Your task to perform on an android device: create a new album in the google photos Image 0: 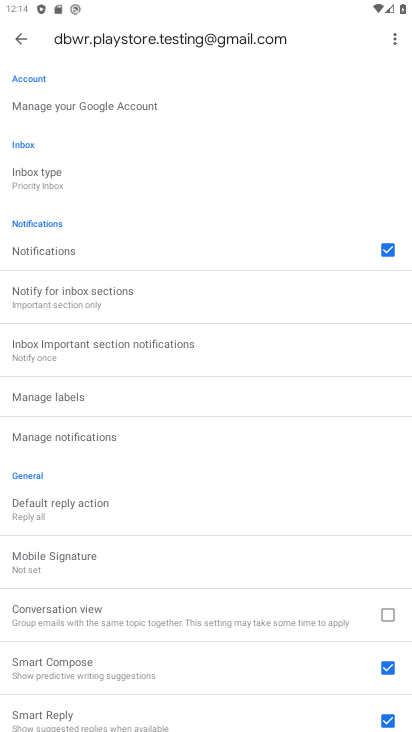
Step 0: press home button
Your task to perform on an android device: create a new album in the google photos Image 1: 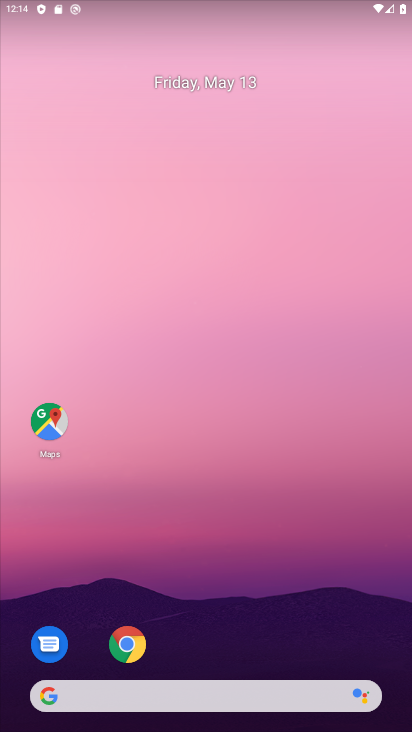
Step 1: drag from (234, 570) to (221, 75)
Your task to perform on an android device: create a new album in the google photos Image 2: 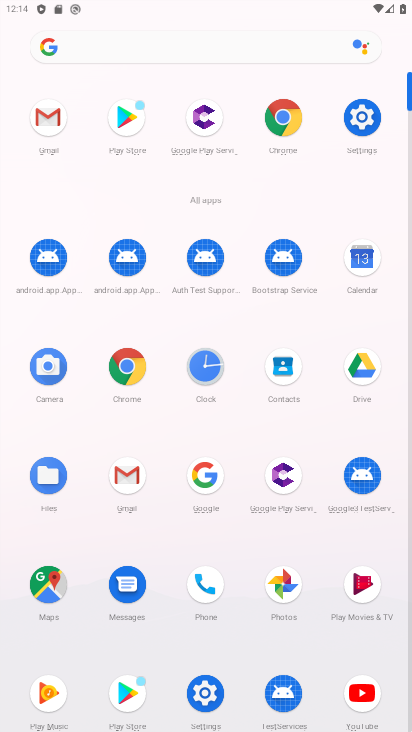
Step 2: click (277, 580)
Your task to perform on an android device: create a new album in the google photos Image 3: 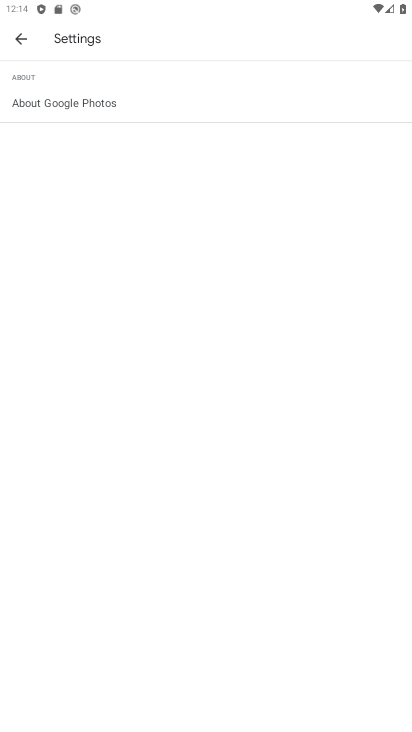
Step 3: click (17, 36)
Your task to perform on an android device: create a new album in the google photos Image 4: 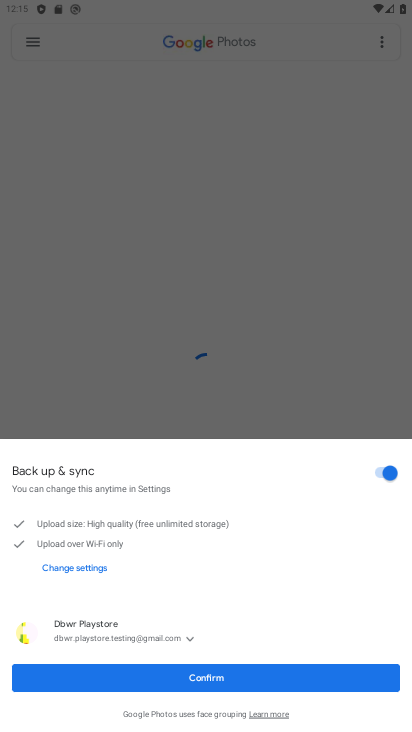
Step 4: click (309, 675)
Your task to perform on an android device: create a new album in the google photos Image 5: 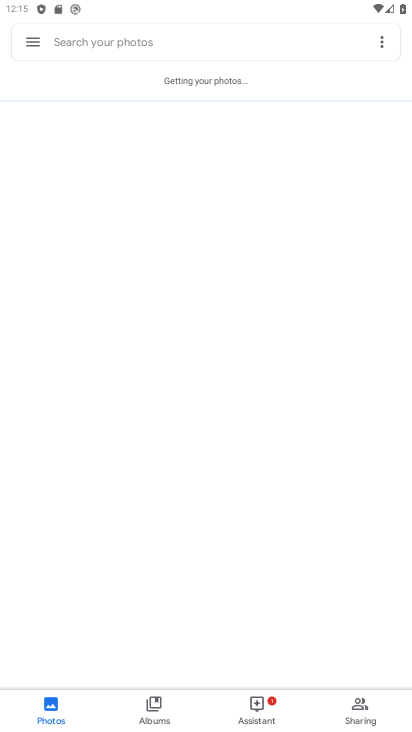
Step 5: click (379, 37)
Your task to perform on an android device: create a new album in the google photos Image 6: 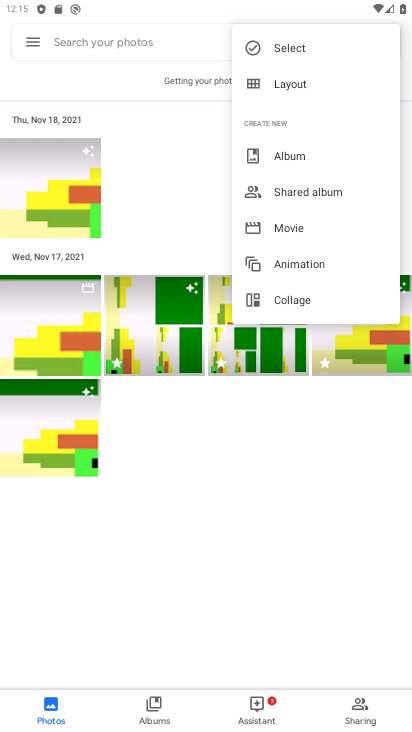
Step 6: click (282, 154)
Your task to perform on an android device: create a new album in the google photos Image 7: 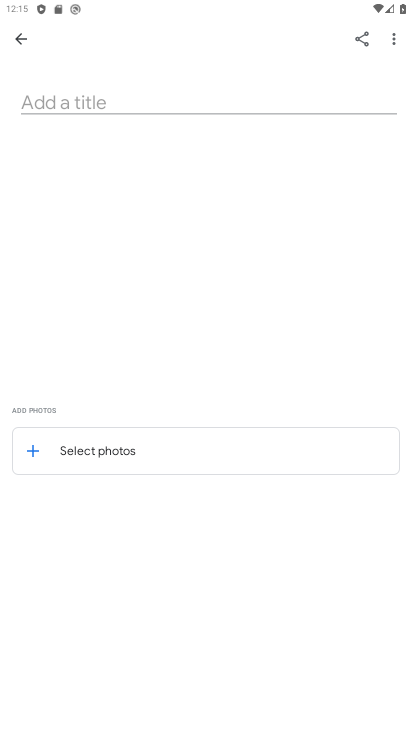
Step 7: click (151, 99)
Your task to perform on an android device: create a new album in the google photos Image 8: 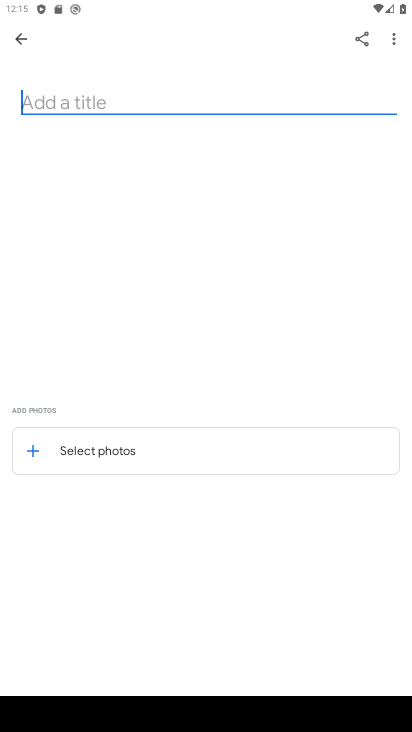
Step 8: type "gfhdeh"
Your task to perform on an android device: create a new album in the google photos Image 9: 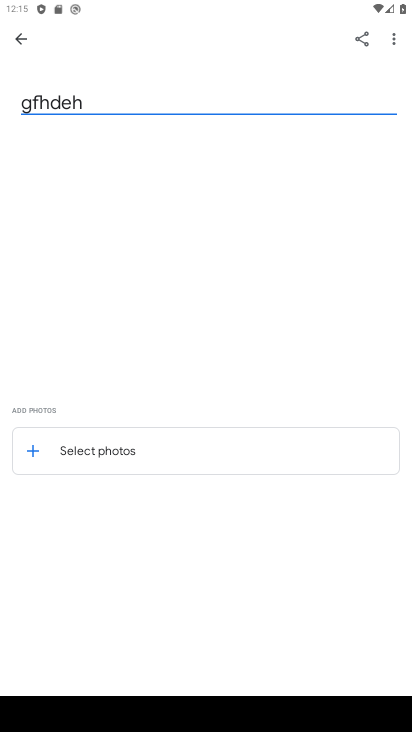
Step 9: click (77, 447)
Your task to perform on an android device: create a new album in the google photos Image 10: 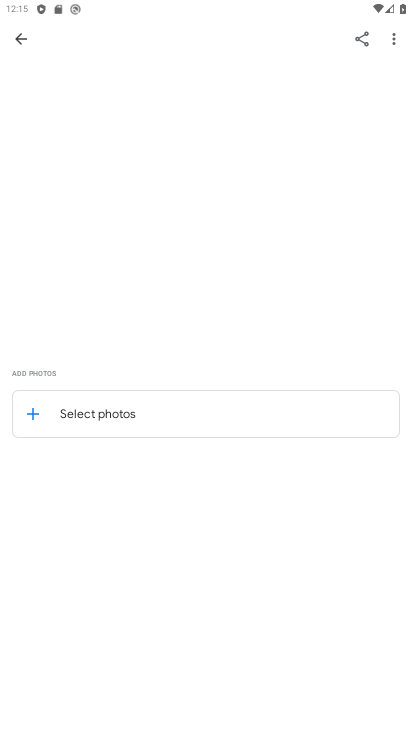
Step 10: click (32, 409)
Your task to perform on an android device: create a new album in the google photos Image 11: 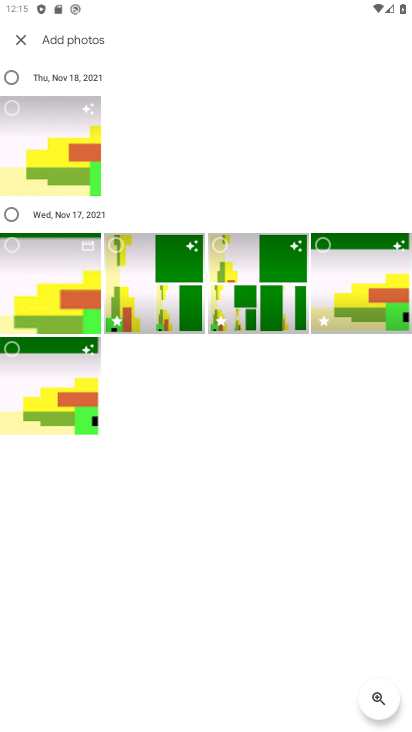
Step 11: click (15, 116)
Your task to perform on an android device: create a new album in the google photos Image 12: 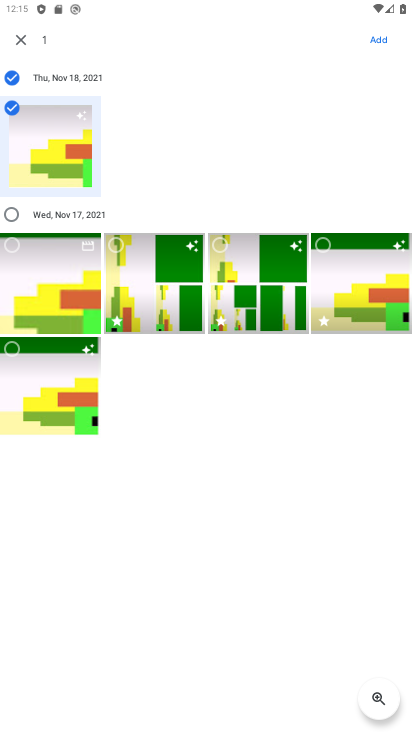
Step 12: click (14, 220)
Your task to perform on an android device: create a new album in the google photos Image 13: 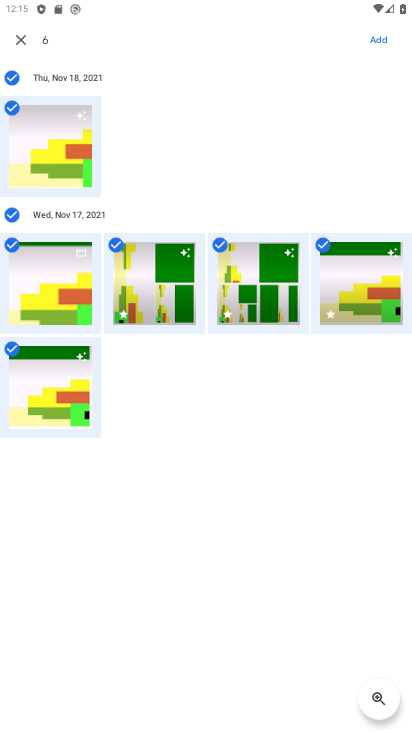
Step 13: click (387, 42)
Your task to perform on an android device: create a new album in the google photos Image 14: 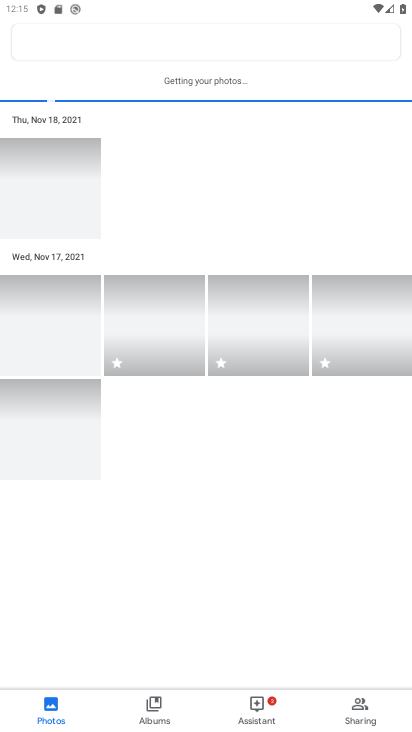
Step 14: task complete